Your task to perform on an android device: Open the stopwatch Image 0: 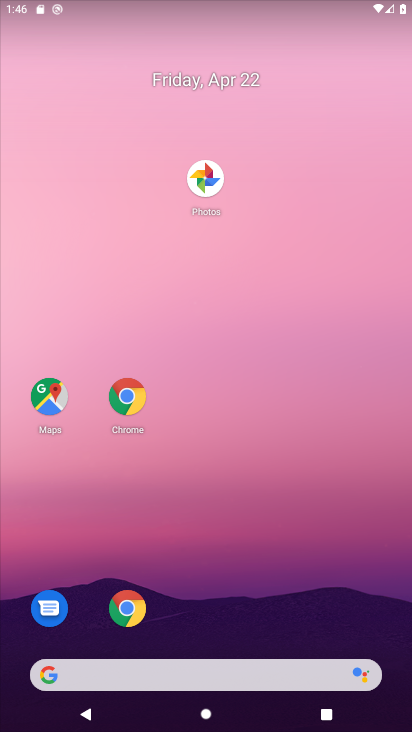
Step 0: drag from (227, 557) to (236, 291)
Your task to perform on an android device: Open the stopwatch Image 1: 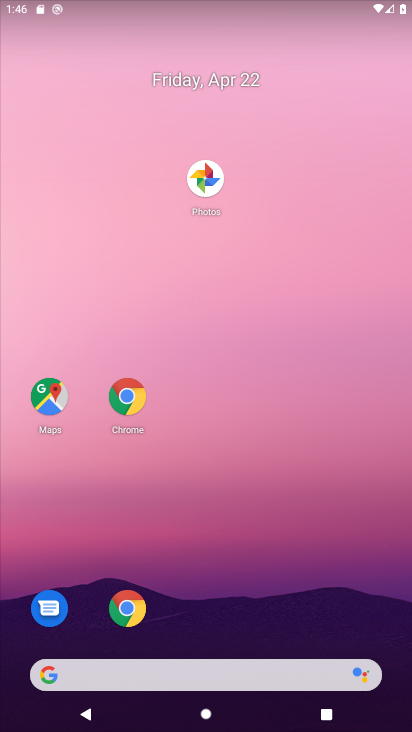
Step 1: drag from (212, 646) to (127, 168)
Your task to perform on an android device: Open the stopwatch Image 2: 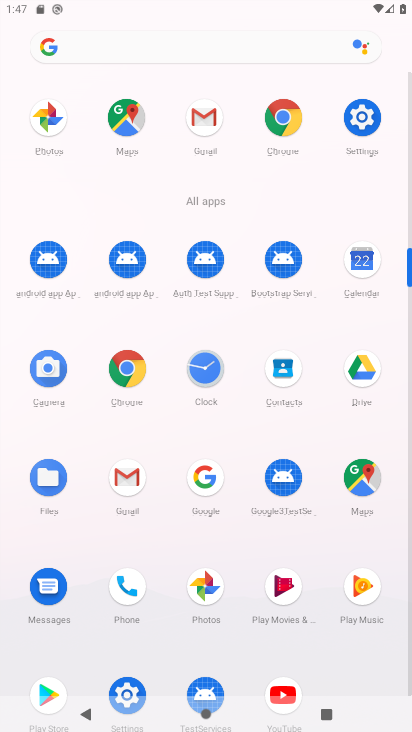
Step 2: click (203, 359)
Your task to perform on an android device: Open the stopwatch Image 3: 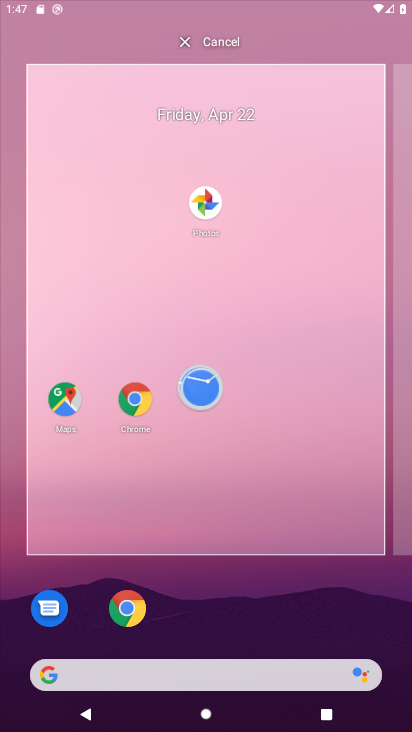
Step 3: click (195, 387)
Your task to perform on an android device: Open the stopwatch Image 4: 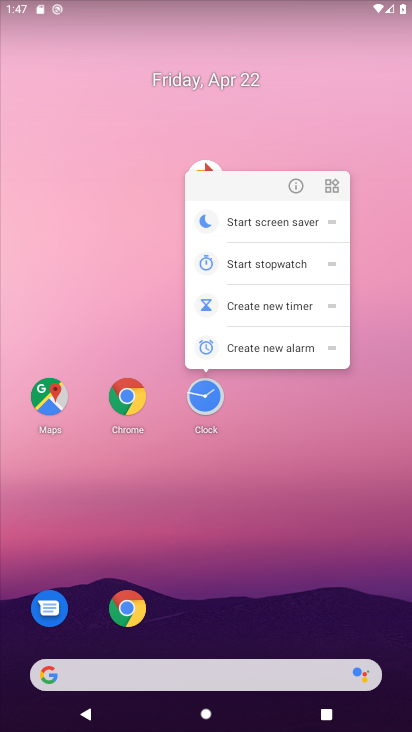
Step 4: drag from (250, 697) to (237, 308)
Your task to perform on an android device: Open the stopwatch Image 5: 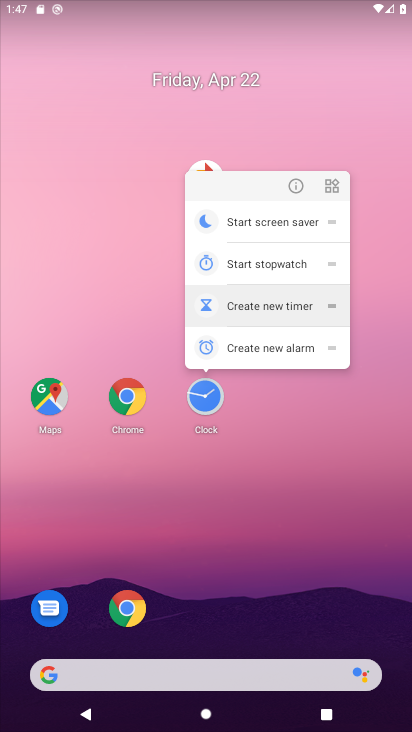
Step 5: drag from (246, 524) to (247, 366)
Your task to perform on an android device: Open the stopwatch Image 6: 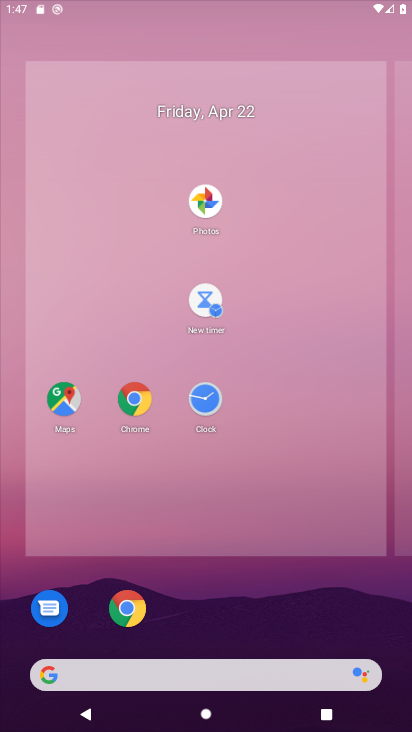
Step 6: drag from (296, 672) to (274, 242)
Your task to perform on an android device: Open the stopwatch Image 7: 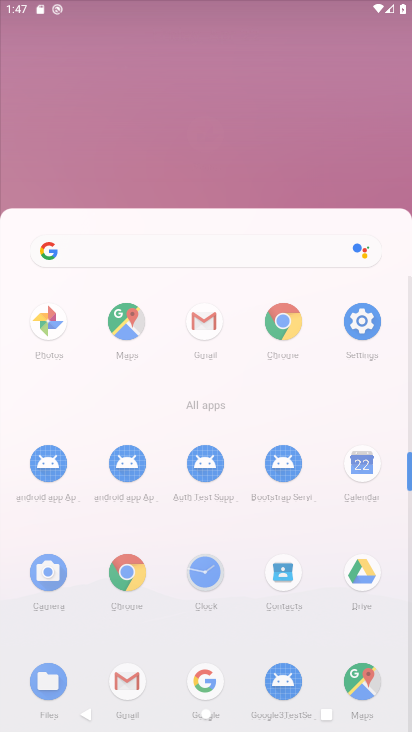
Step 7: drag from (225, 601) to (243, 113)
Your task to perform on an android device: Open the stopwatch Image 8: 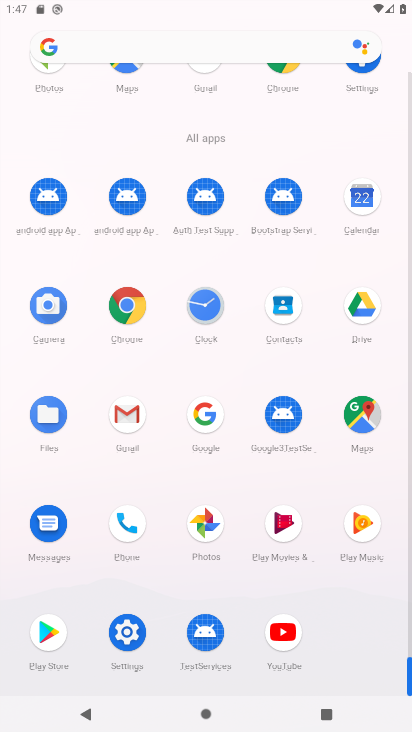
Step 8: click (190, 308)
Your task to perform on an android device: Open the stopwatch Image 9: 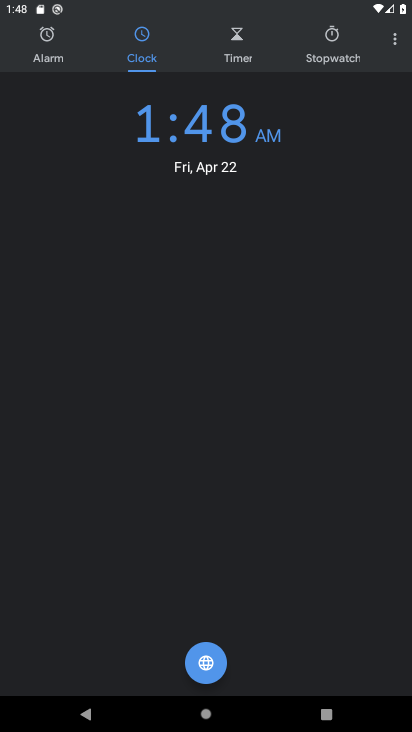
Step 9: click (323, 25)
Your task to perform on an android device: Open the stopwatch Image 10: 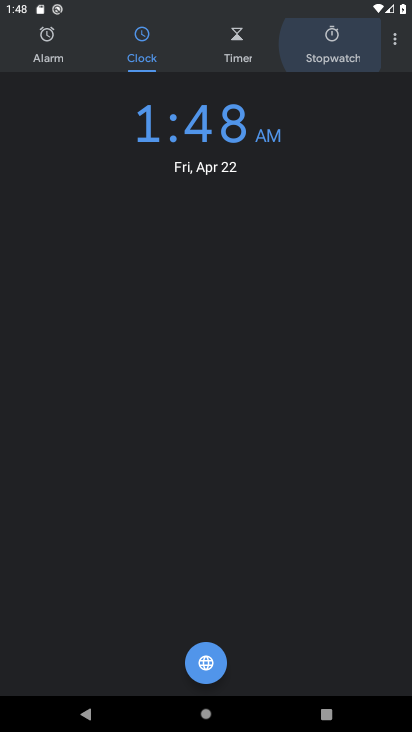
Step 10: drag from (322, 47) to (325, 89)
Your task to perform on an android device: Open the stopwatch Image 11: 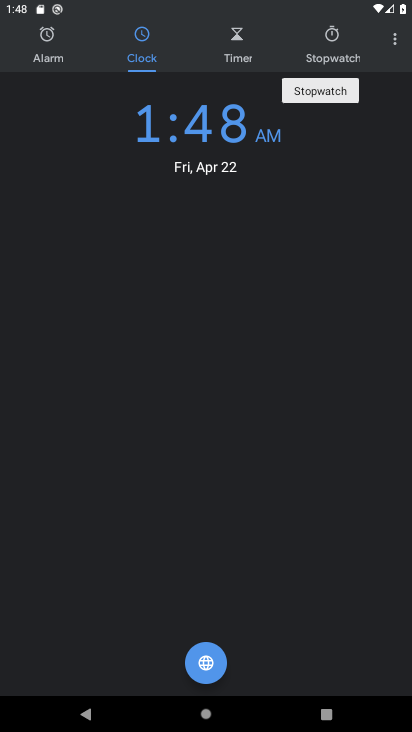
Step 11: click (325, 89)
Your task to perform on an android device: Open the stopwatch Image 12: 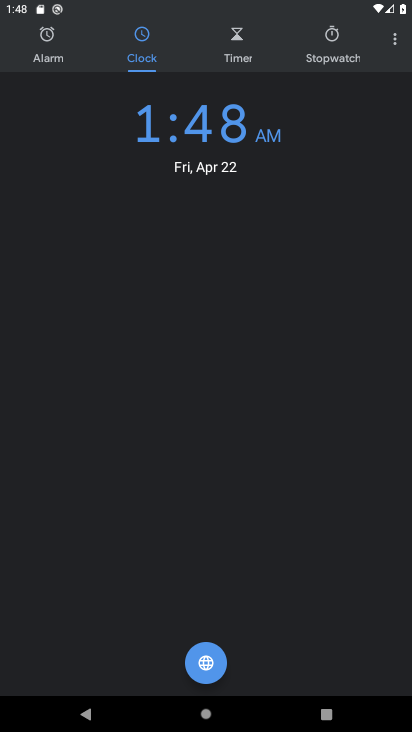
Step 12: drag from (329, 75) to (348, 41)
Your task to perform on an android device: Open the stopwatch Image 13: 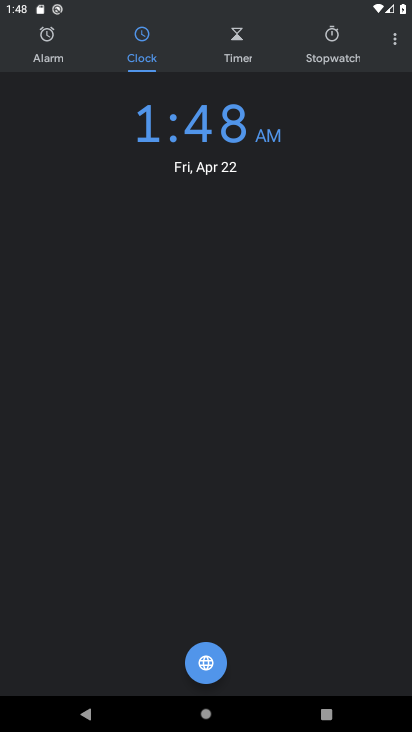
Step 13: click (346, 53)
Your task to perform on an android device: Open the stopwatch Image 14: 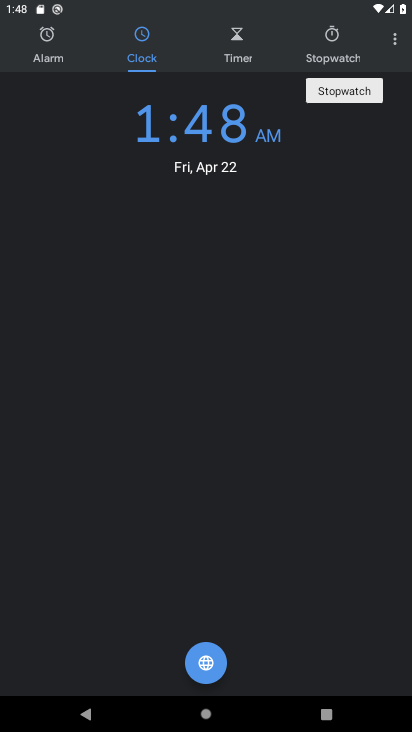
Step 14: click (331, 84)
Your task to perform on an android device: Open the stopwatch Image 15: 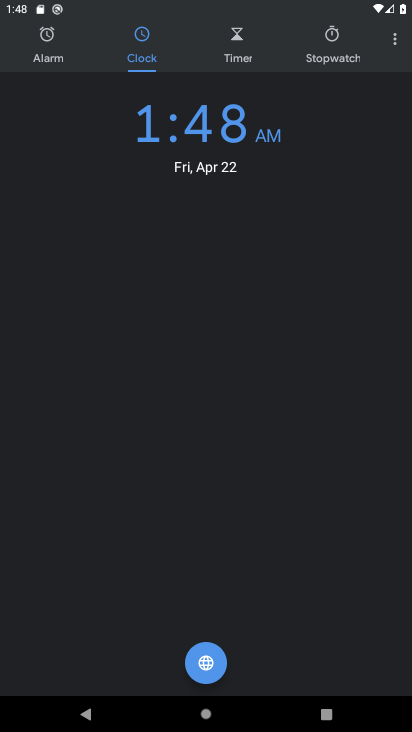
Step 15: drag from (343, 39) to (304, 78)
Your task to perform on an android device: Open the stopwatch Image 16: 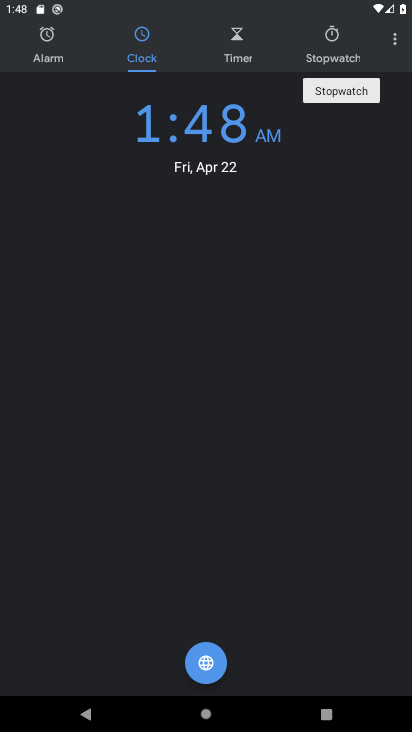
Step 16: click (322, 49)
Your task to perform on an android device: Open the stopwatch Image 17: 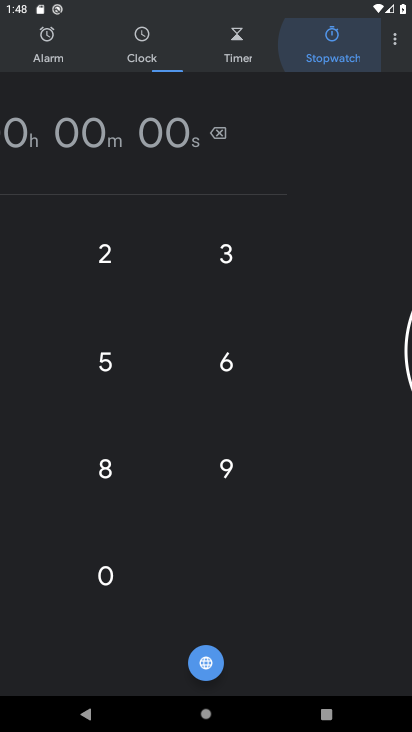
Step 17: click (324, 45)
Your task to perform on an android device: Open the stopwatch Image 18: 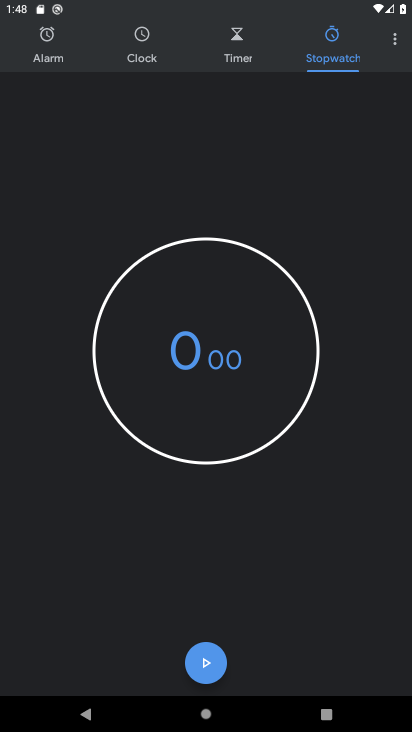
Step 18: click (323, 46)
Your task to perform on an android device: Open the stopwatch Image 19: 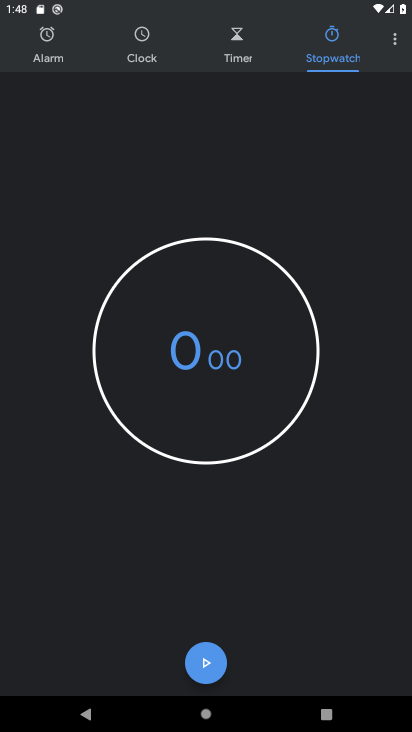
Step 19: click (208, 659)
Your task to perform on an android device: Open the stopwatch Image 20: 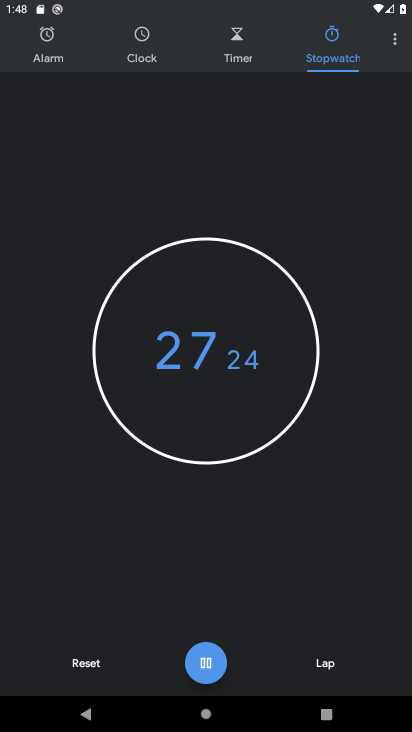
Step 20: task complete